Your task to perform on an android device: change the clock style Image 0: 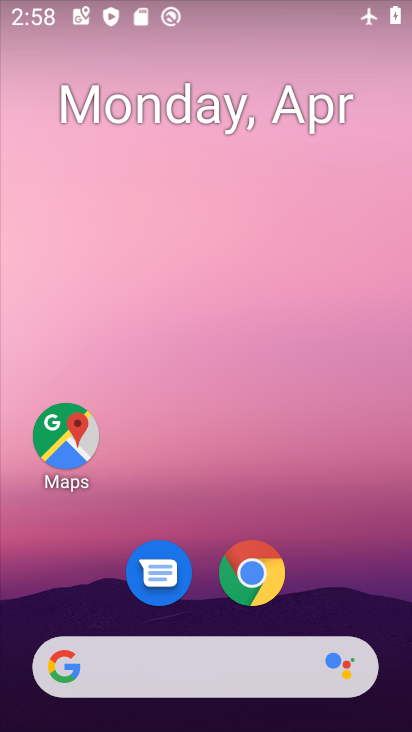
Step 0: drag from (365, 588) to (360, 121)
Your task to perform on an android device: change the clock style Image 1: 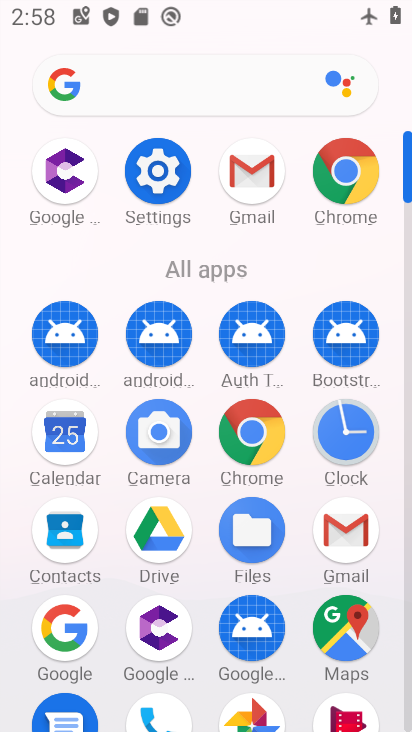
Step 1: click (355, 429)
Your task to perform on an android device: change the clock style Image 2: 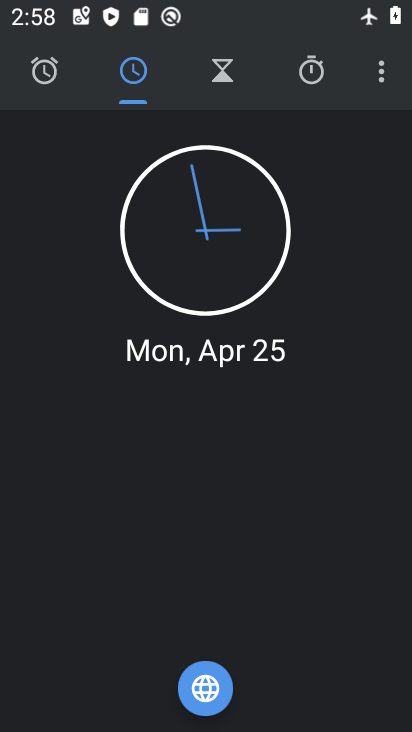
Step 2: click (379, 74)
Your task to perform on an android device: change the clock style Image 3: 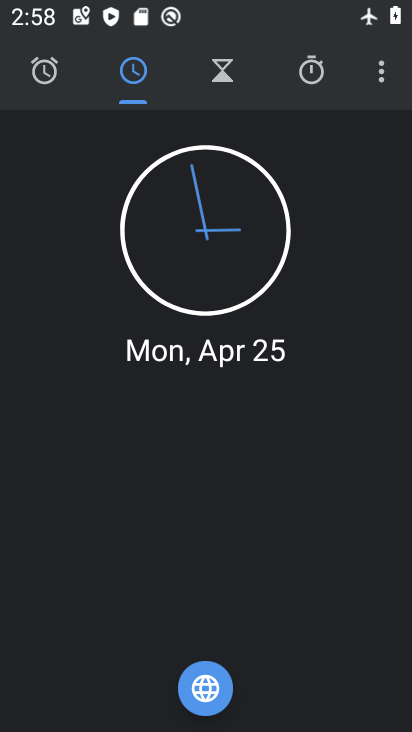
Step 3: click (380, 69)
Your task to perform on an android device: change the clock style Image 4: 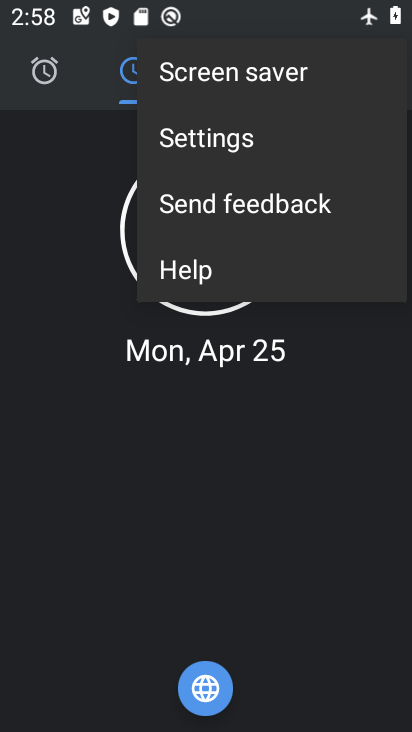
Step 4: click (248, 151)
Your task to perform on an android device: change the clock style Image 5: 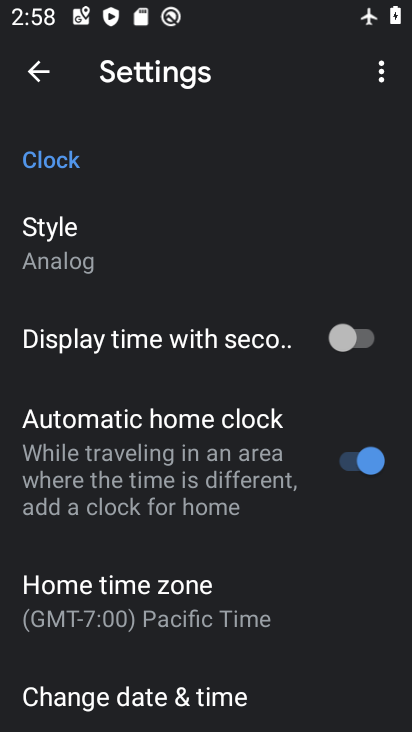
Step 5: drag from (317, 583) to (321, 450)
Your task to perform on an android device: change the clock style Image 6: 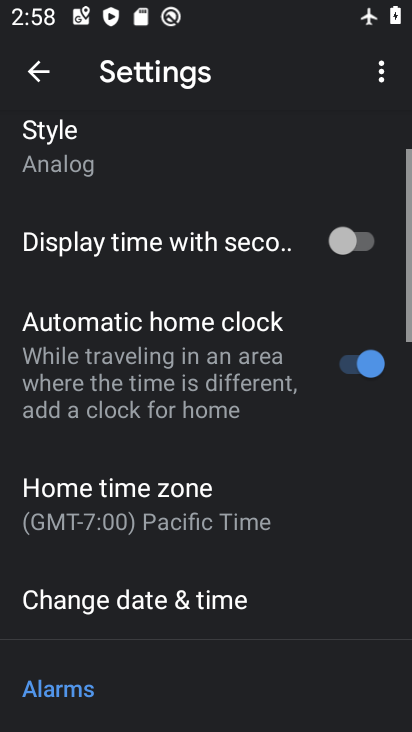
Step 6: drag from (310, 582) to (307, 450)
Your task to perform on an android device: change the clock style Image 7: 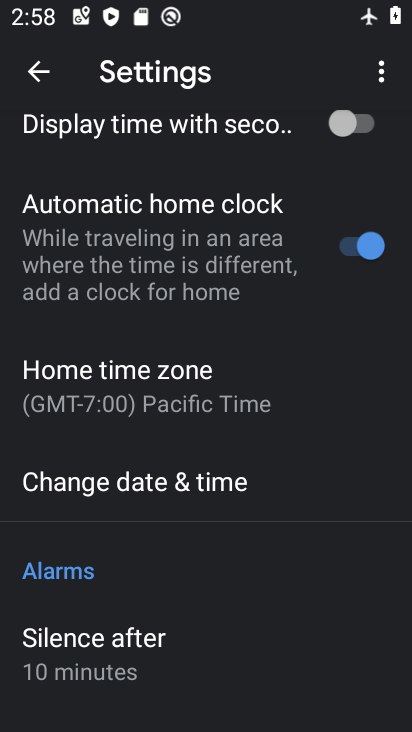
Step 7: drag from (296, 566) to (304, 284)
Your task to perform on an android device: change the clock style Image 8: 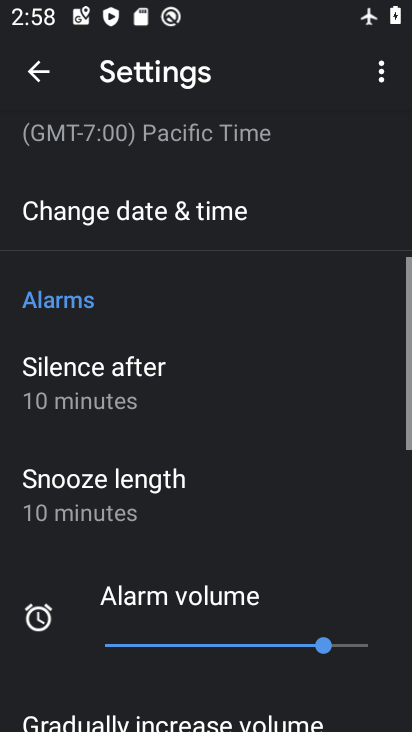
Step 8: drag from (333, 588) to (346, 467)
Your task to perform on an android device: change the clock style Image 9: 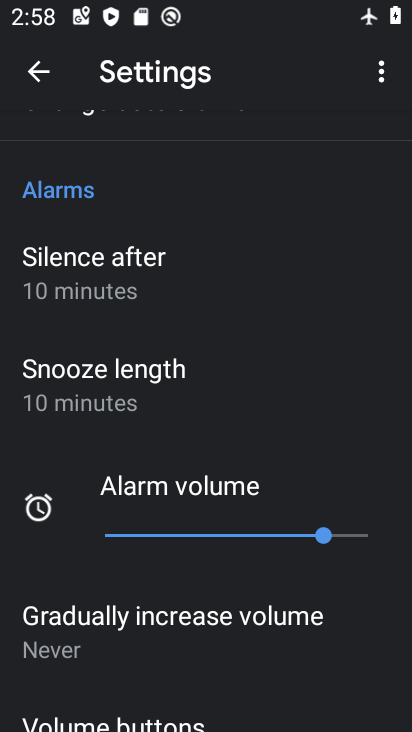
Step 9: drag from (352, 651) to (363, 437)
Your task to perform on an android device: change the clock style Image 10: 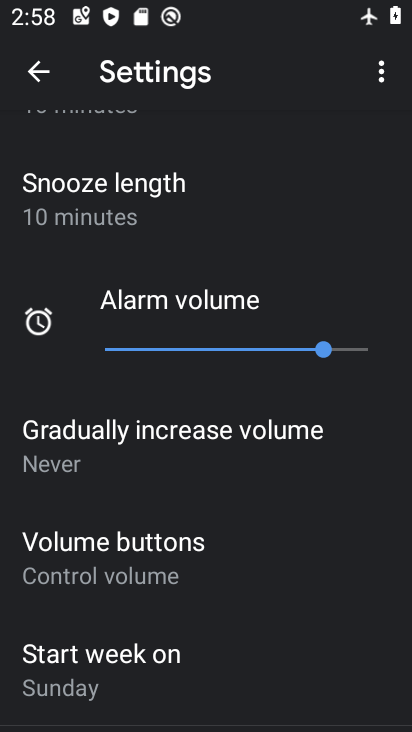
Step 10: drag from (339, 633) to (342, 448)
Your task to perform on an android device: change the clock style Image 11: 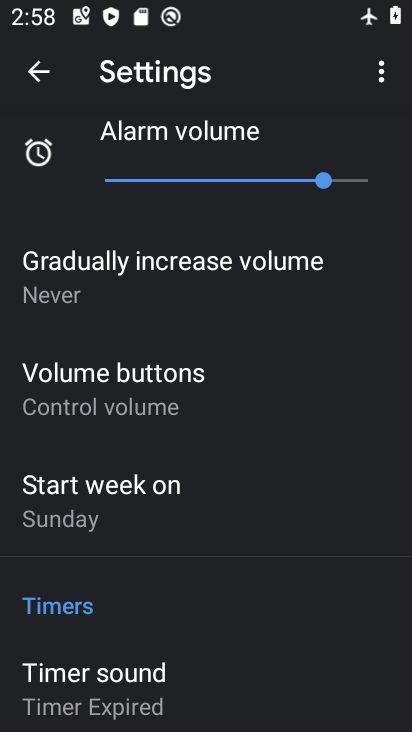
Step 11: drag from (329, 596) to (327, 384)
Your task to perform on an android device: change the clock style Image 12: 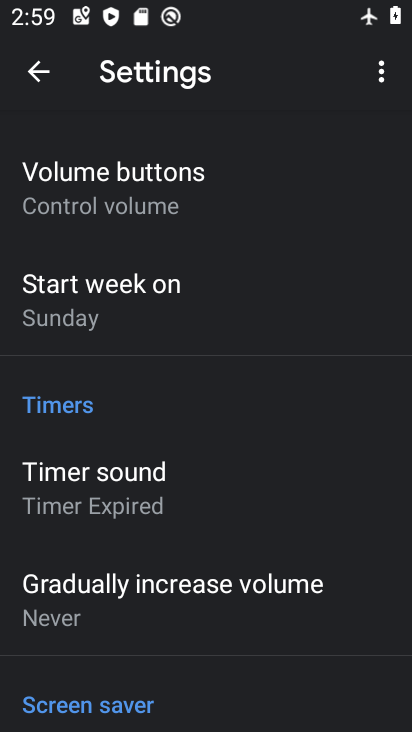
Step 12: drag from (324, 672) to (330, 414)
Your task to perform on an android device: change the clock style Image 13: 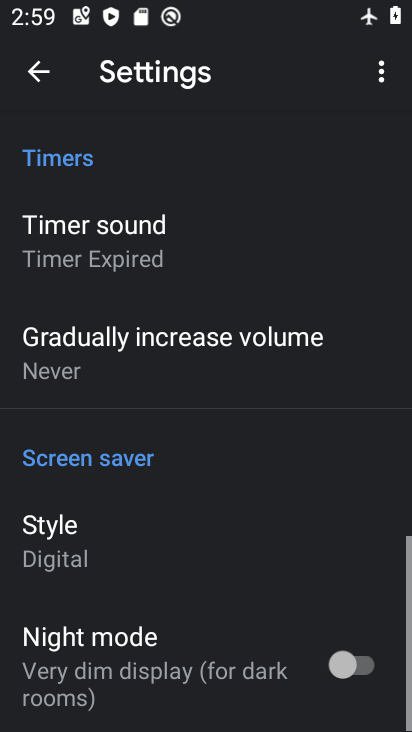
Step 13: drag from (368, 306) to (365, 485)
Your task to perform on an android device: change the clock style Image 14: 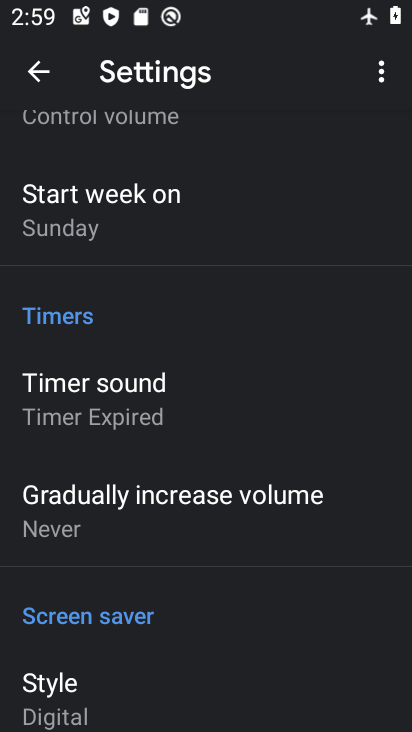
Step 14: drag from (347, 416) to (351, 600)
Your task to perform on an android device: change the clock style Image 15: 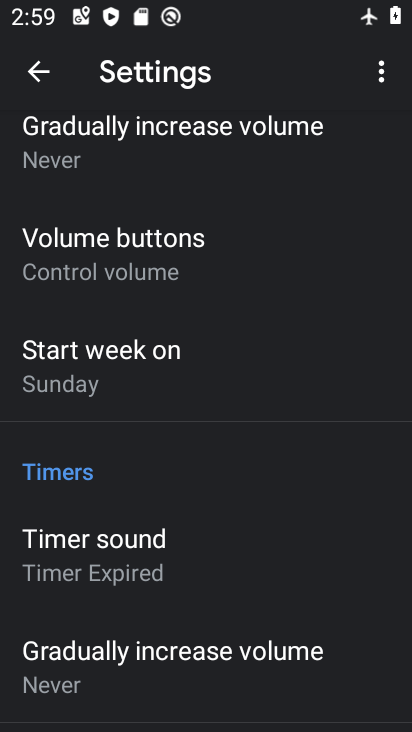
Step 15: drag from (331, 353) to (334, 514)
Your task to perform on an android device: change the clock style Image 16: 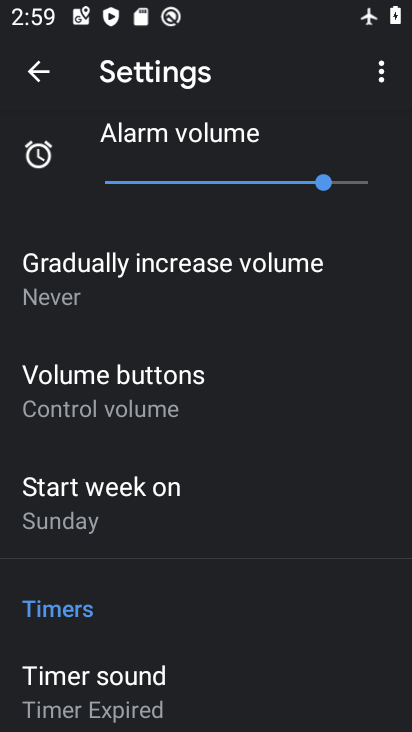
Step 16: drag from (326, 325) to (327, 520)
Your task to perform on an android device: change the clock style Image 17: 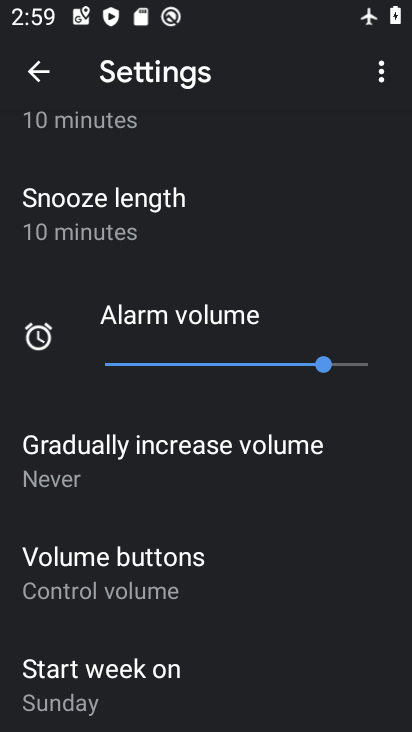
Step 17: drag from (338, 280) to (336, 492)
Your task to perform on an android device: change the clock style Image 18: 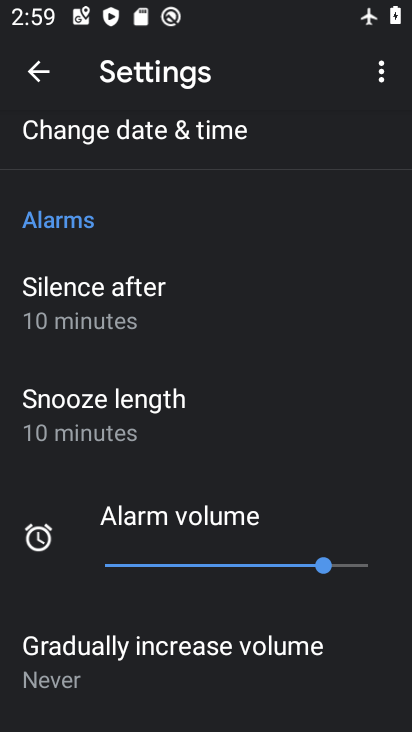
Step 18: drag from (330, 260) to (324, 451)
Your task to perform on an android device: change the clock style Image 19: 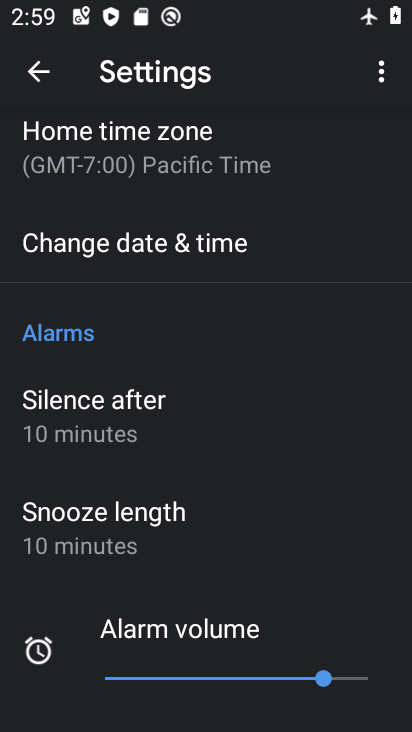
Step 19: drag from (318, 175) to (315, 401)
Your task to perform on an android device: change the clock style Image 20: 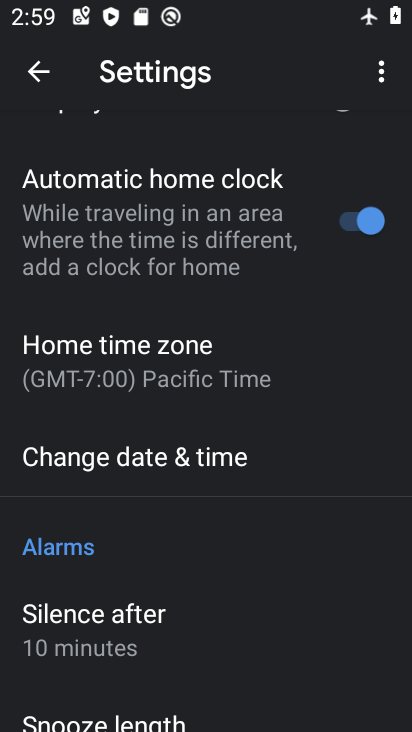
Step 20: drag from (307, 154) to (311, 378)
Your task to perform on an android device: change the clock style Image 21: 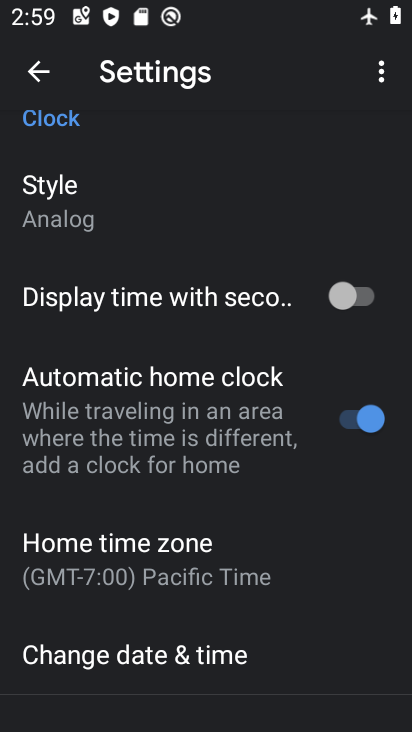
Step 21: click (69, 212)
Your task to perform on an android device: change the clock style Image 22: 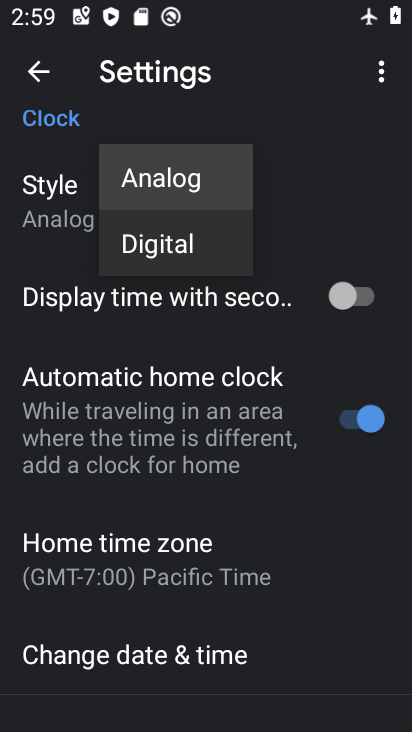
Step 22: click (161, 250)
Your task to perform on an android device: change the clock style Image 23: 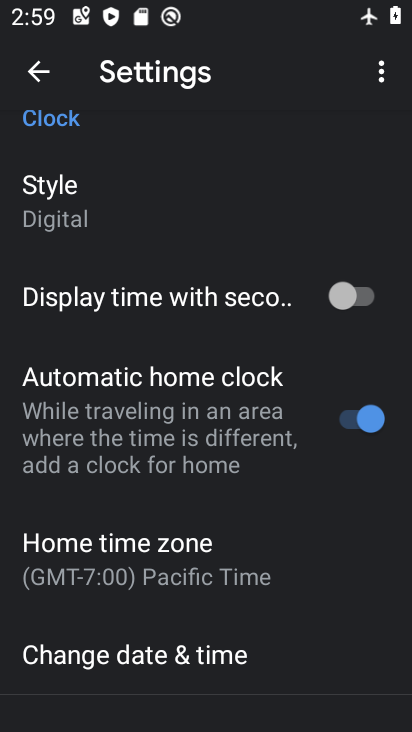
Step 23: task complete